Your task to perform on an android device: turn notification dots off Image 0: 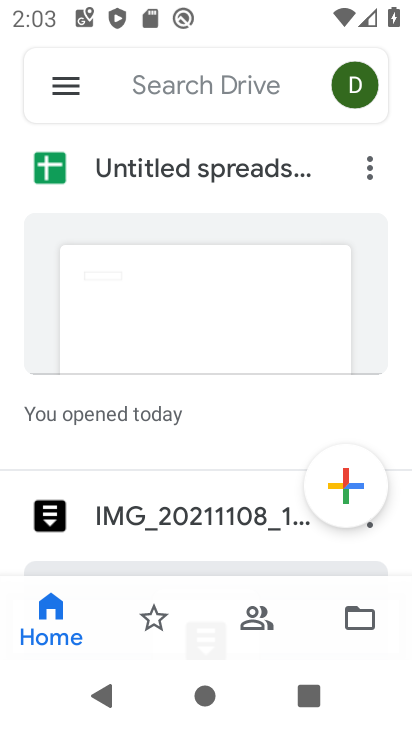
Step 0: press home button
Your task to perform on an android device: turn notification dots off Image 1: 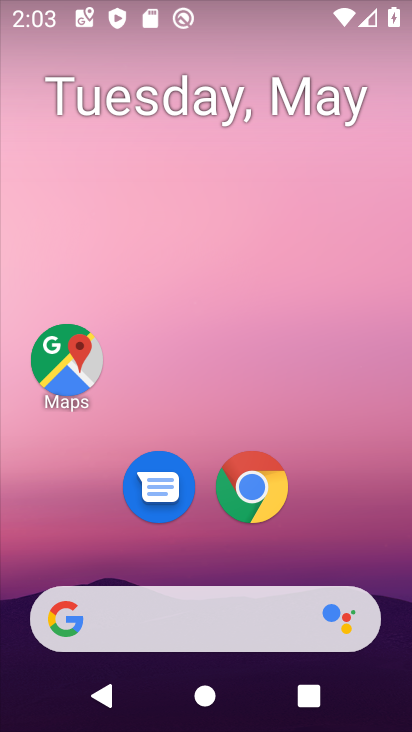
Step 1: drag from (204, 579) to (247, 51)
Your task to perform on an android device: turn notification dots off Image 2: 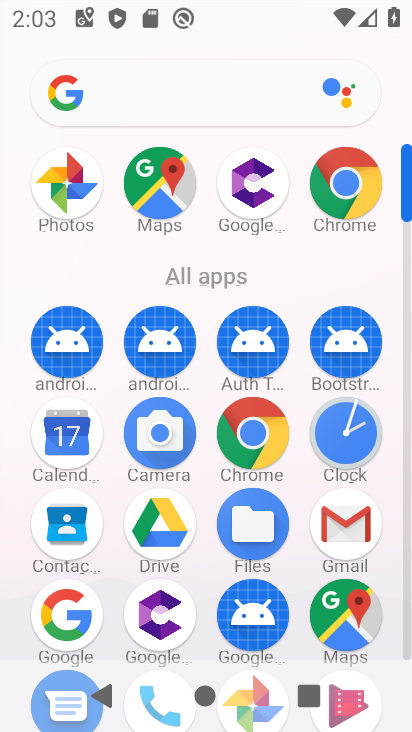
Step 2: drag from (205, 630) to (222, 253)
Your task to perform on an android device: turn notification dots off Image 3: 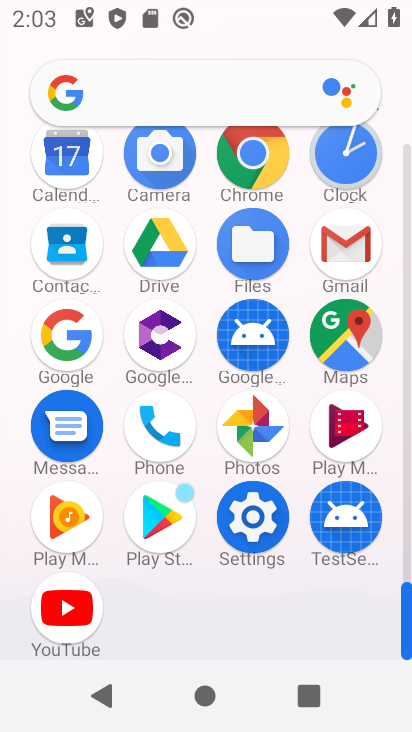
Step 3: click (265, 534)
Your task to perform on an android device: turn notification dots off Image 4: 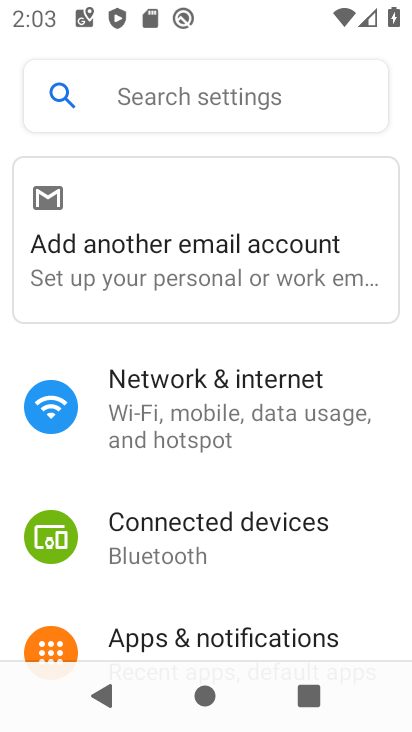
Step 4: click (225, 640)
Your task to perform on an android device: turn notification dots off Image 5: 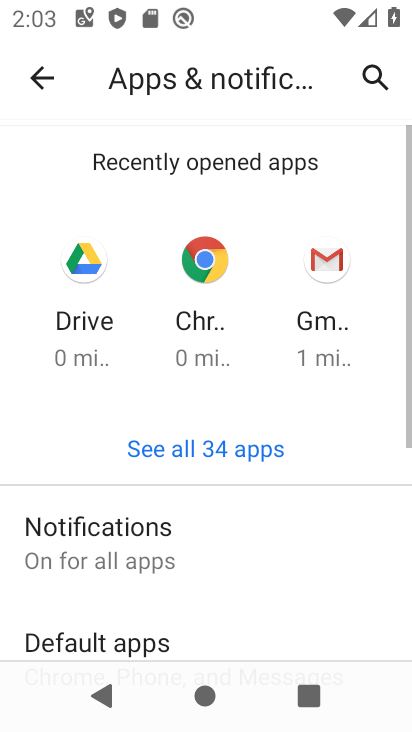
Step 5: click (219, 553)
Your task to perform on an android device: turn notification dots off Image 6: 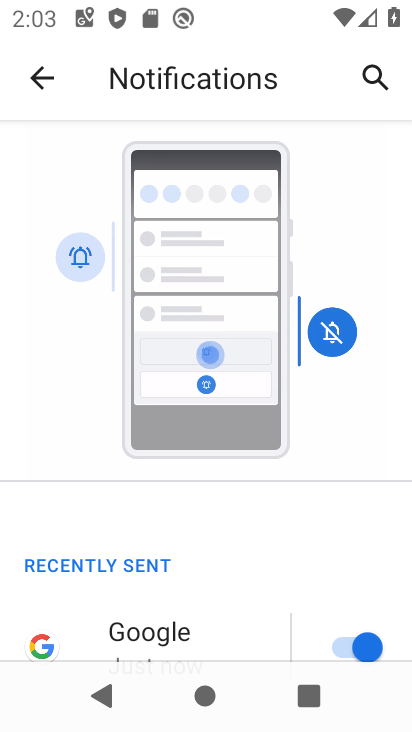
Step 6: drag from (224, 642) to (296, 217)
Your task to perform on an android device: turn notification dots off Image 7: 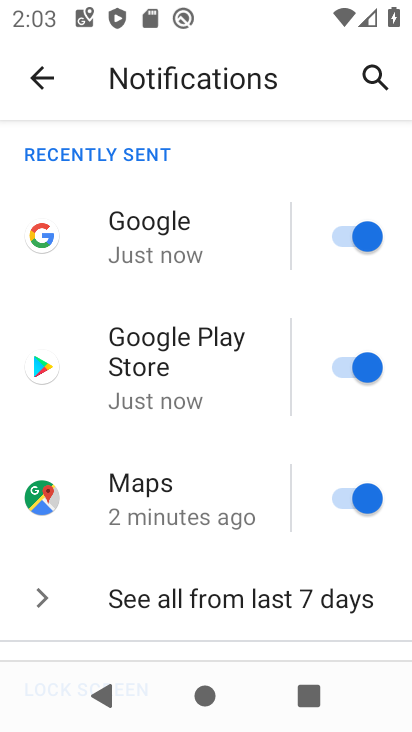
Step 7: drag from (229, 593) to (244, 203)
Your task to perform on an android device: turn notification dots off Image 8: 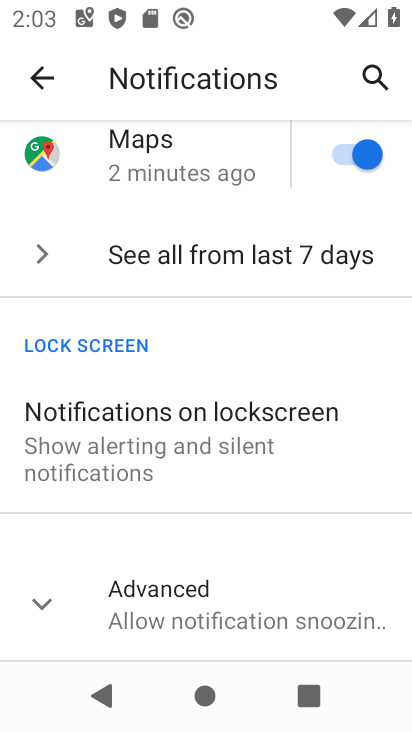
Step 8: click (172, 595)
Your task to perform on an android device: turn notification dots off Image 9: 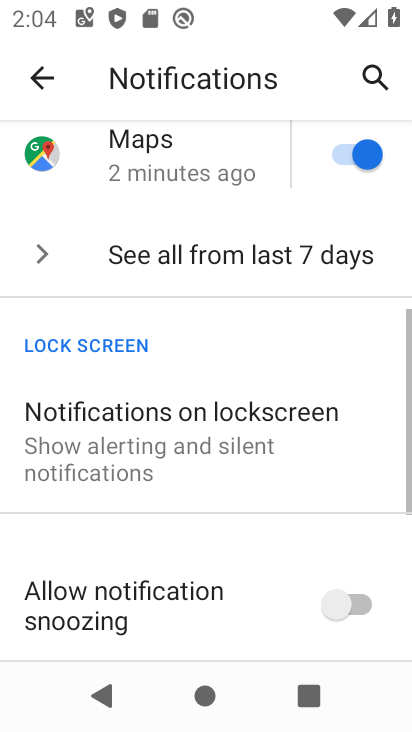
Step 9: drag from (238, 621) to (276, 187)
Your task to perform on an android device: turn notification dots off Image 10: 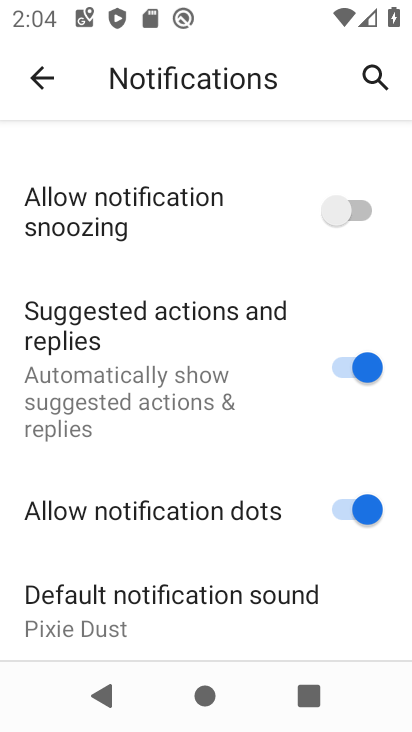
Step 10: click (363, 506)
Your task to perform on an android device: turn notification dots off Image 11: 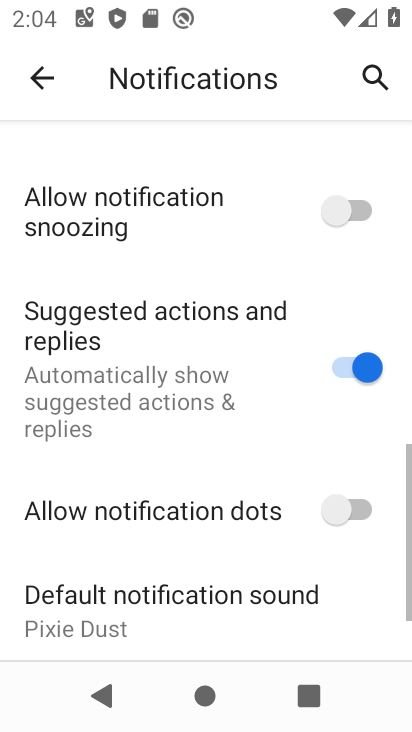
Step 11: task complete